Your task to perform on an android device: open app "Speedtest by Ookla" (install if not already installed) Image 0: 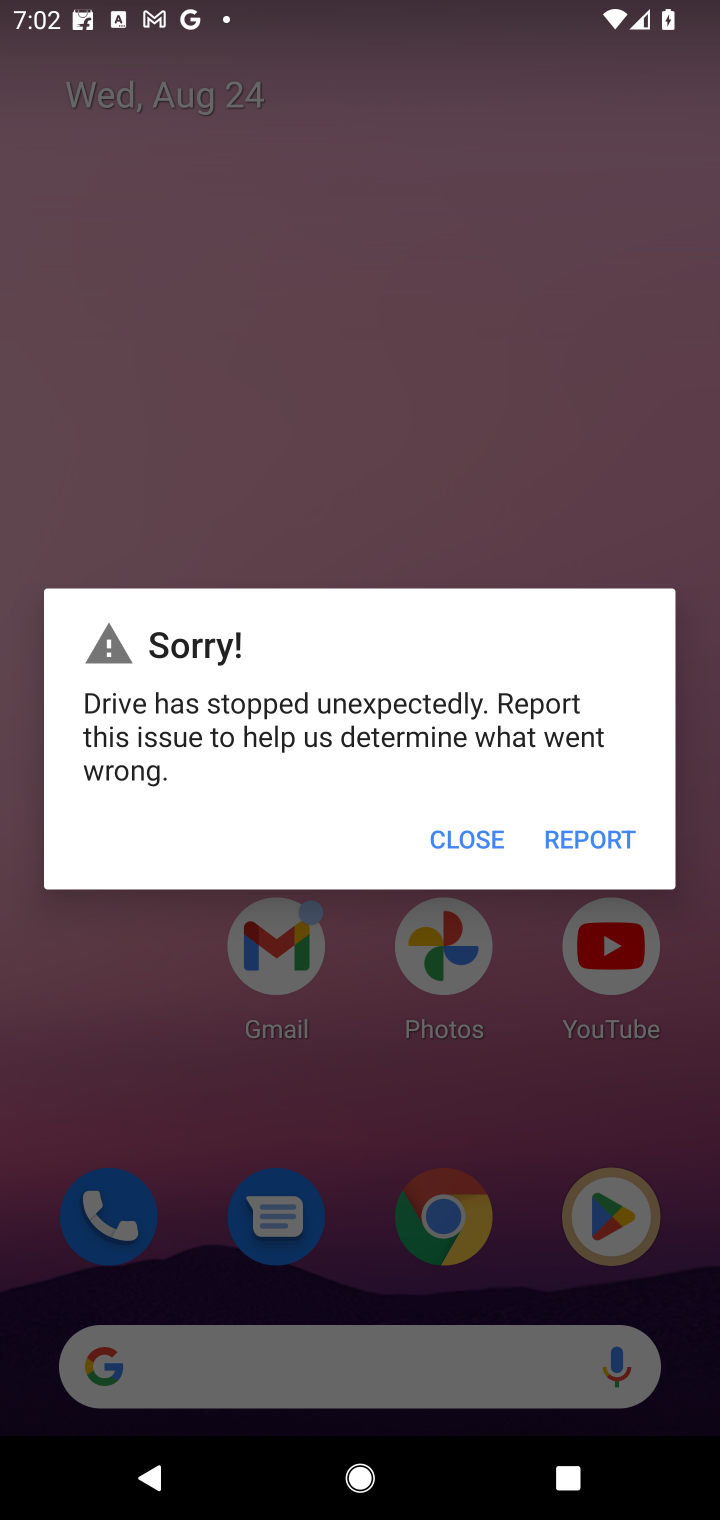
Step 0: click (458, 817)
Your task to perform on an android device: open app "Speedtest by Ookla" (install if not already installed) Image 1: 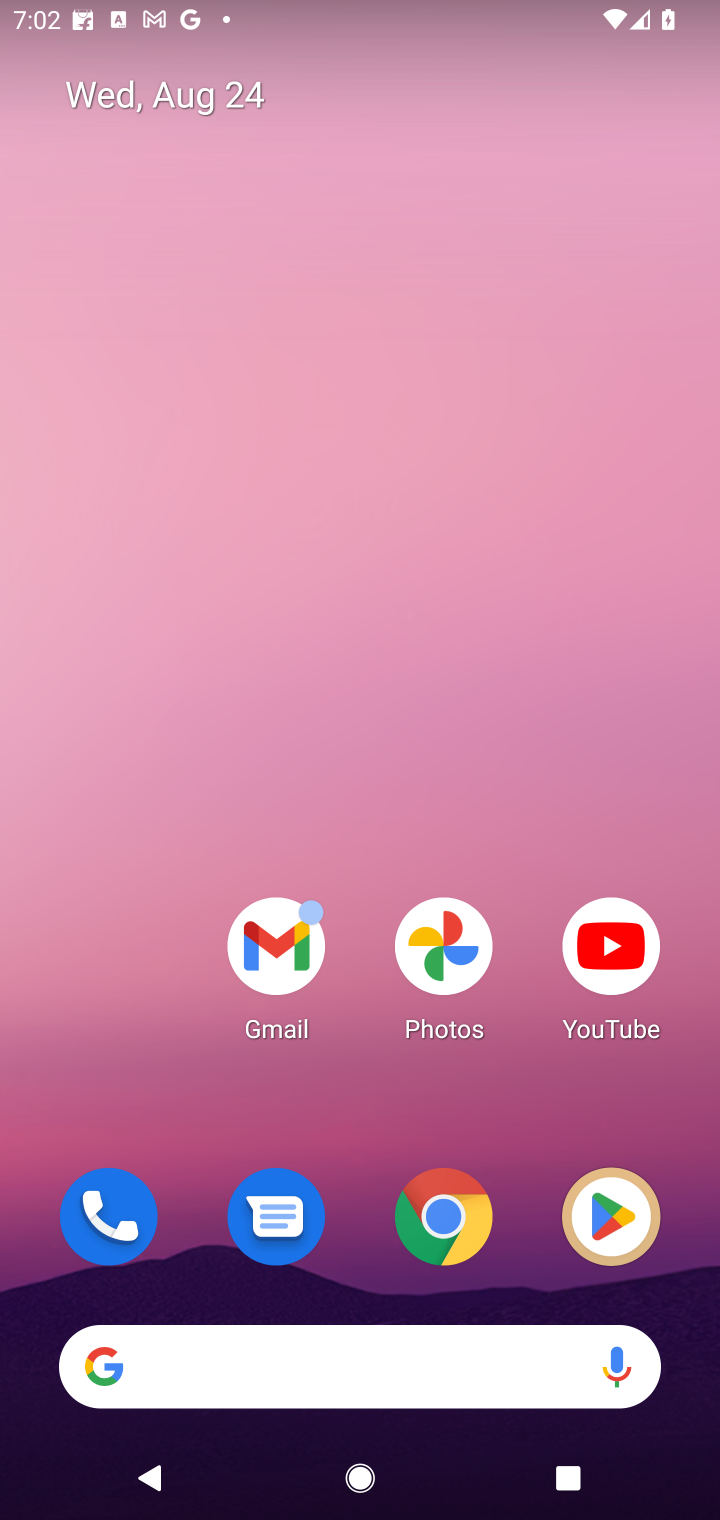
Step 1: click (603, 1182)
Your task to perform on an android device: open app "Speedtest by Ookla" (install if not already installed) Image 2: 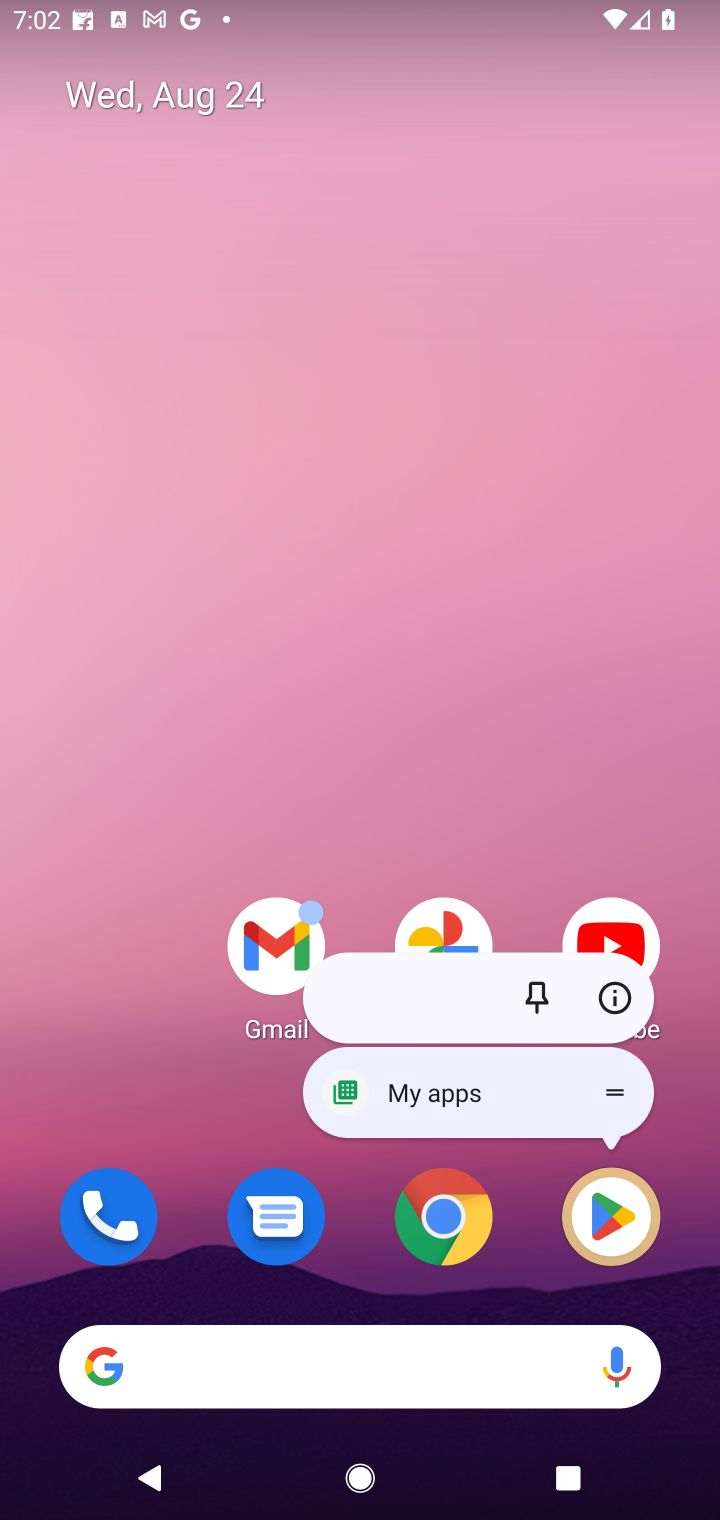
Step 2: click (611, 1222)
Your task to perform on an android device: open app "Speedtest by Ookla" (install if not already installed) Image 3: 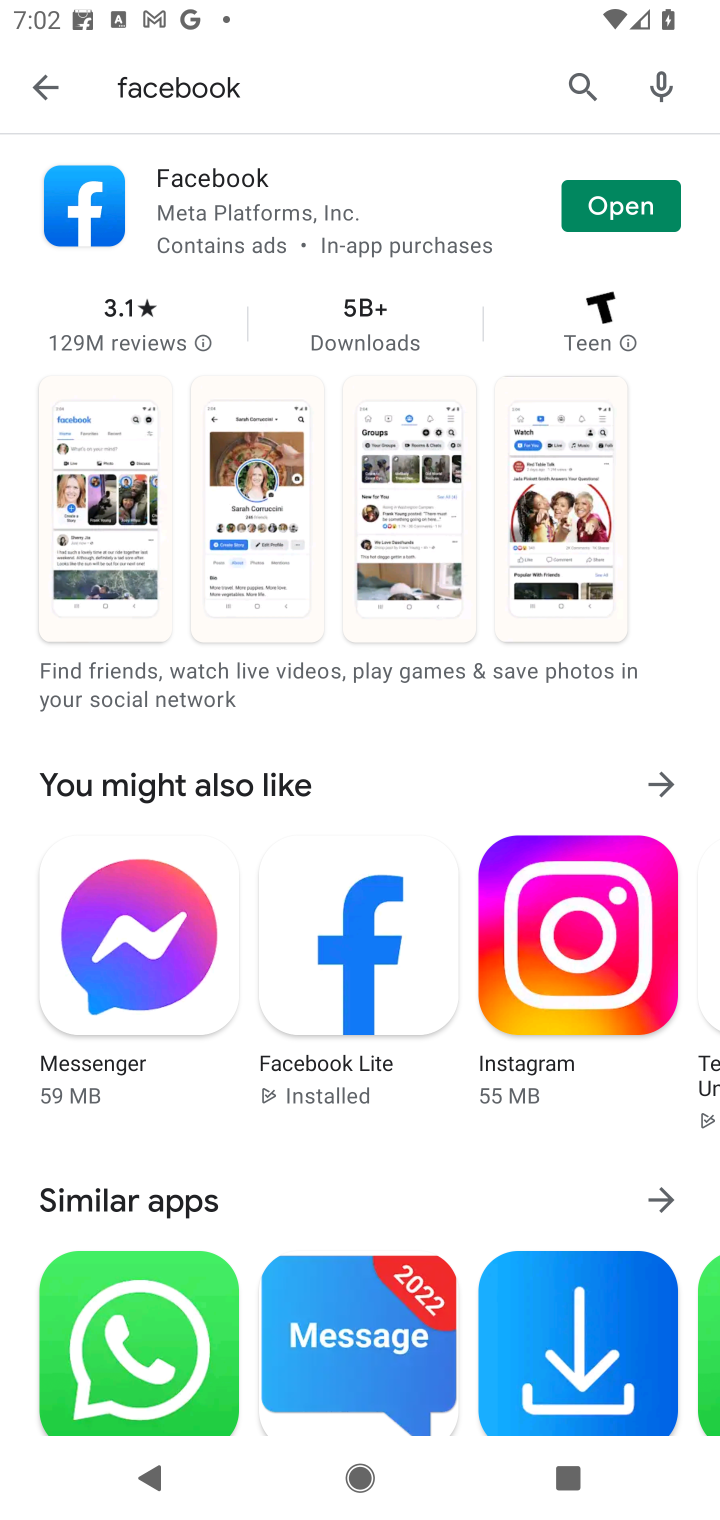
Step 3: click (569, 95)
Your task to perform on an android device: open app "Speedtest by Ookla" (install if not already installed) Image 4: 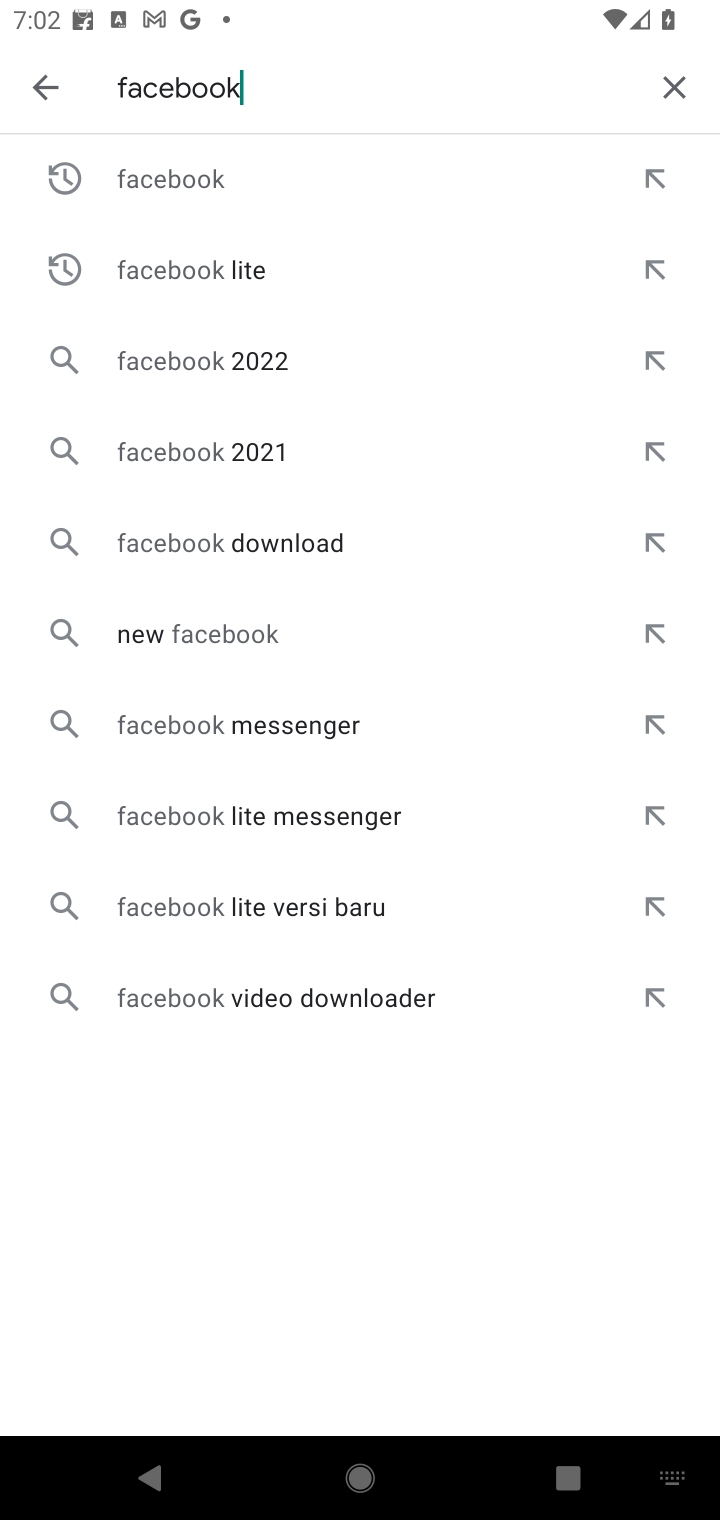
Step 4: click (684, 71)
Your task to perform on an android device: open app "Speedtest by Ookla" (install if not already installed) Image 5: 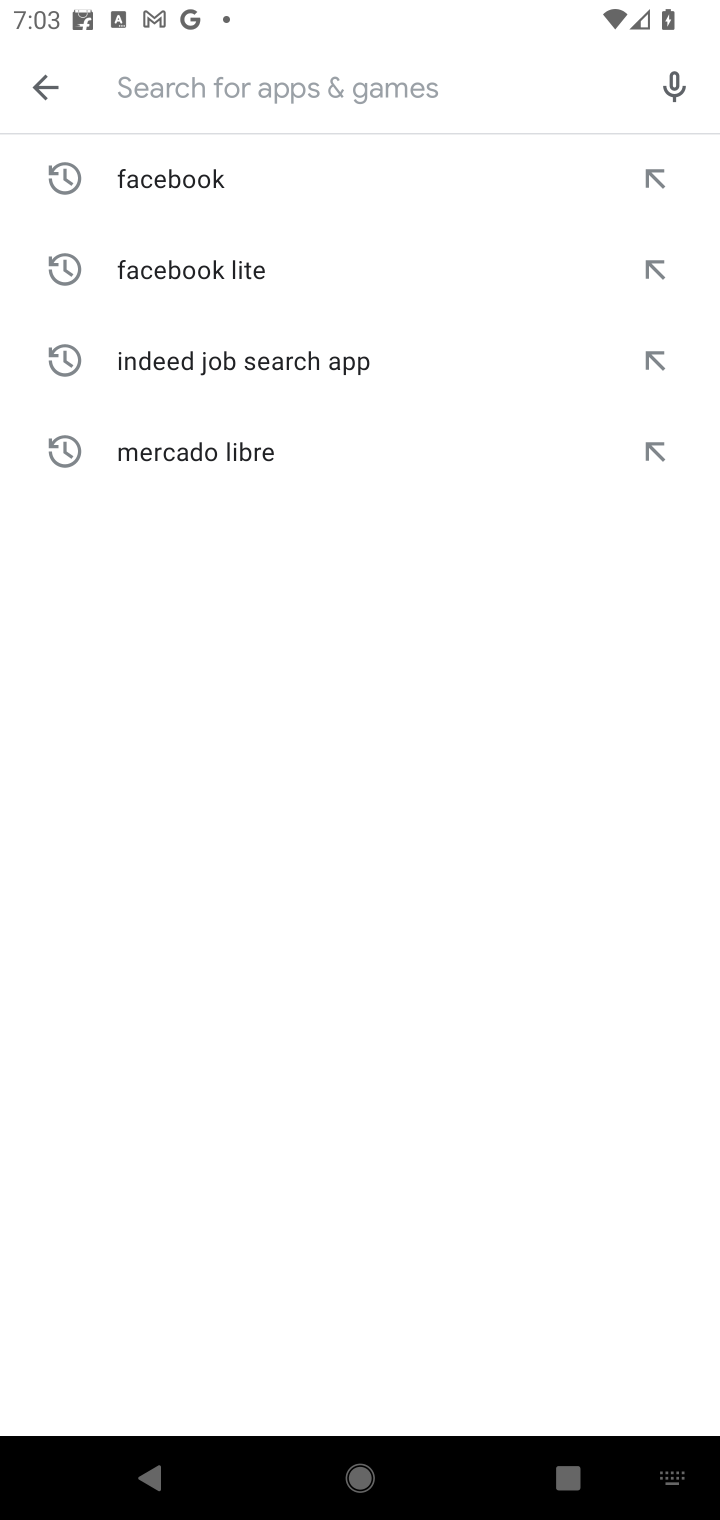
Step 5: type "Speedtest by Ookla"
Your task to perform on an android device: open app "Speedtest by Ookla" (install if not already installed) Image 6: 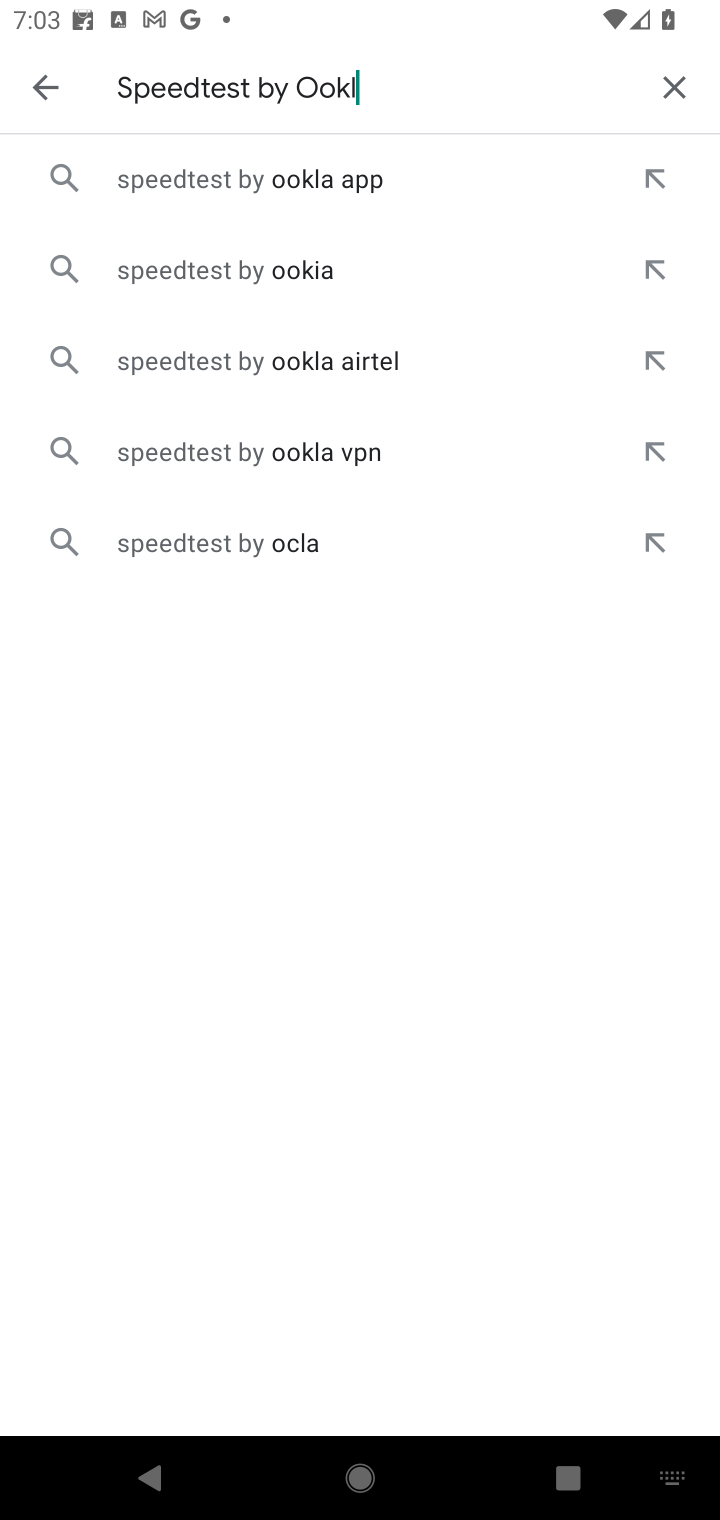
Step 6: type ""
Your task to perform on an android device: open app "Speedtest by Ookla" (install if not already installed) Image 7: 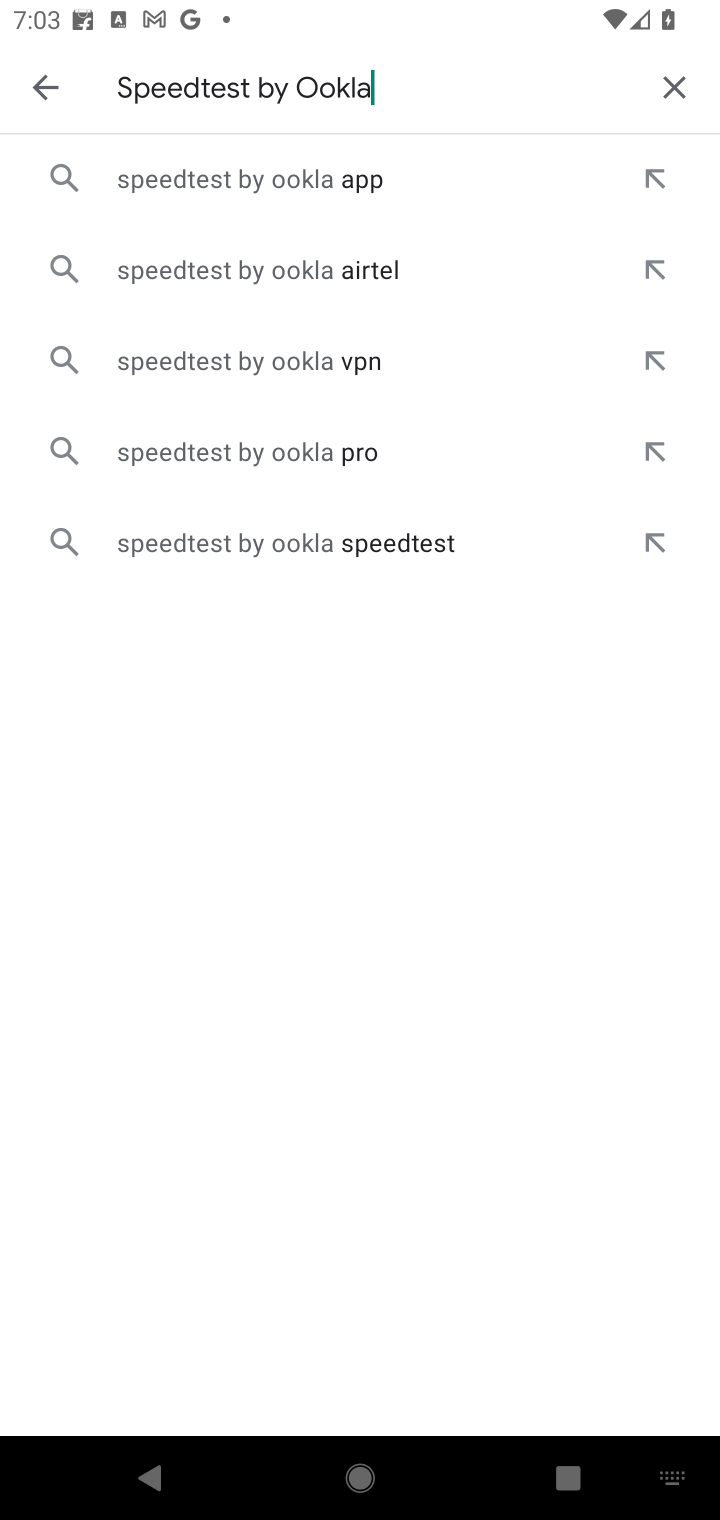
Step 7: click (363, 191)
Your task to perform on an android device: open app "Speedtest by Ookla" (install if not already installed) Image 8: 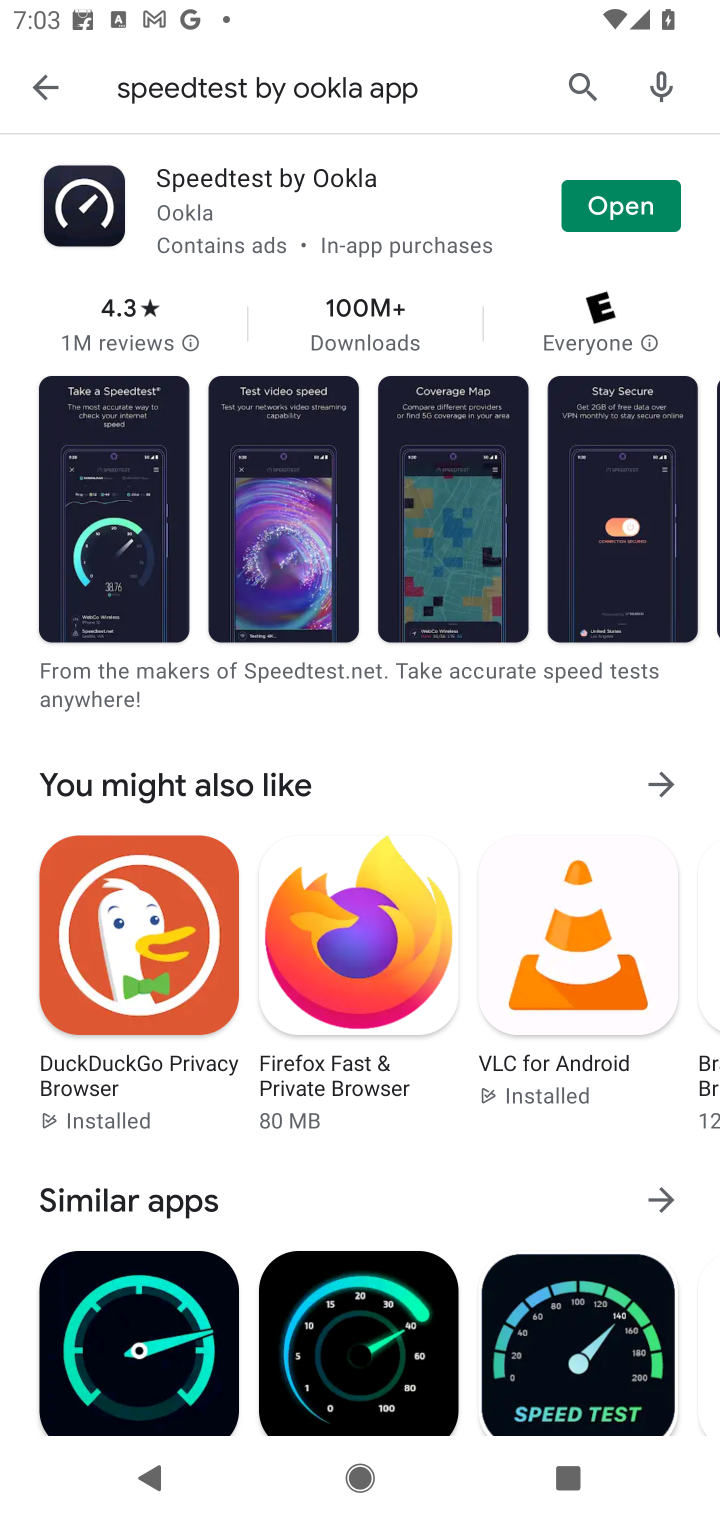
Step 8: click (645, 198)
Your task to perform on an android device: open app "Speedtest by Ookla" (install if not already installed) Image 9: 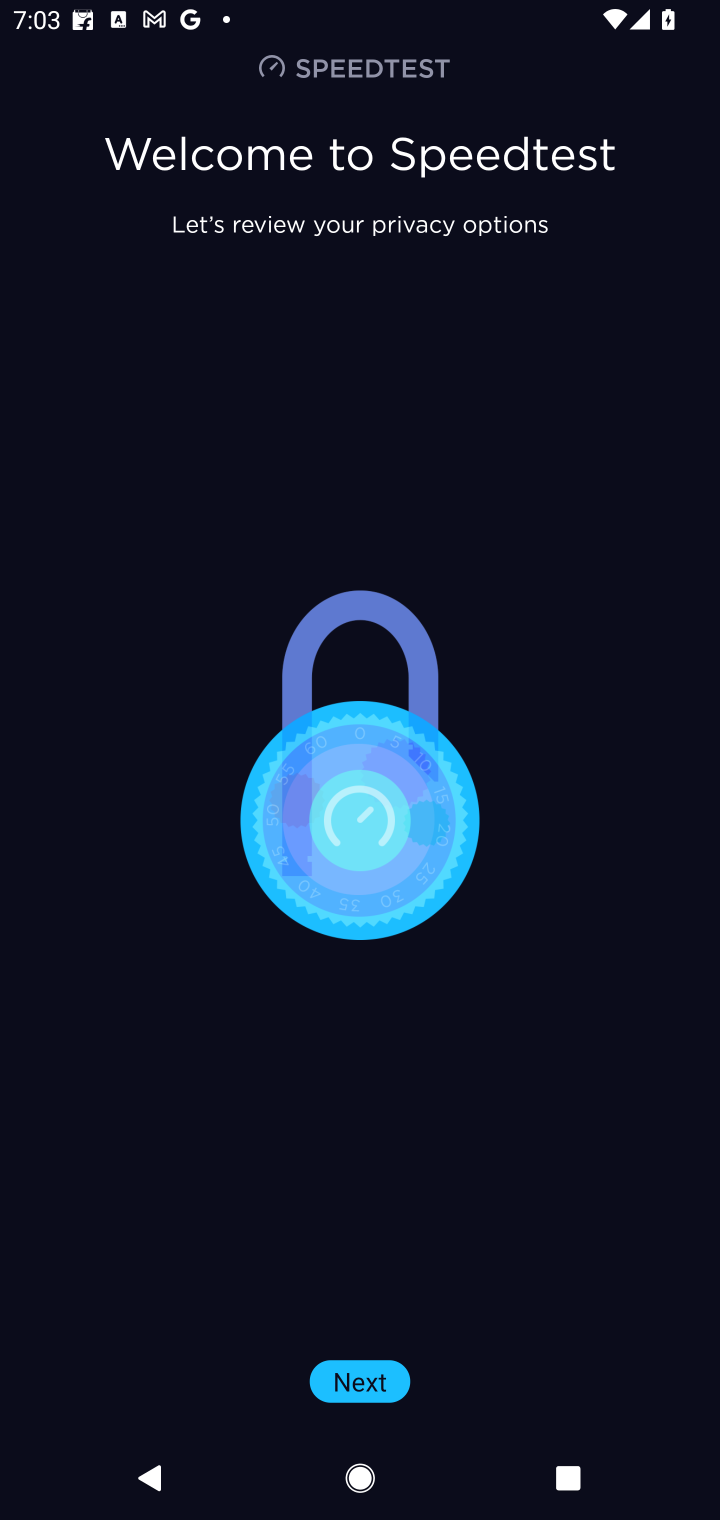
Step 9: task complete